Your task to perform on an android device: check out phone information Image 0: 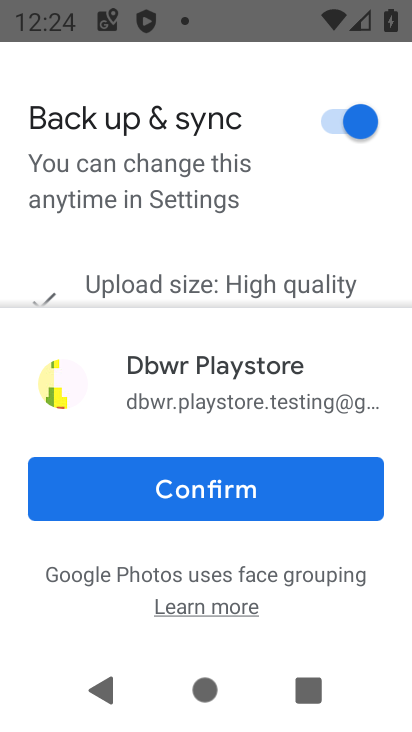
Step 0: press home button
Your task to perform on an android device: check out phone information Image 1: 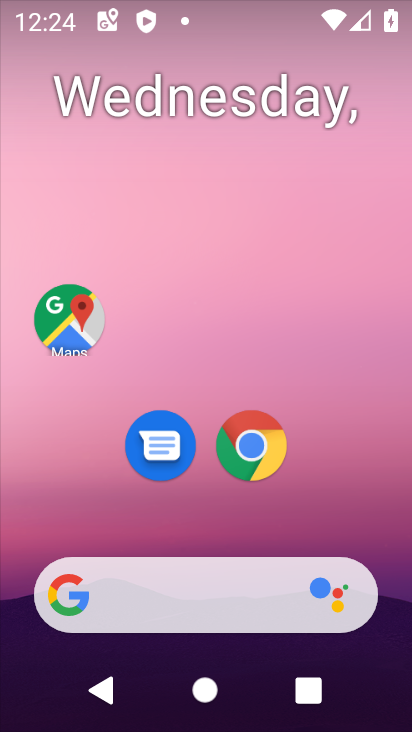
Step 1: drag from (298, 488) to (235, 165)
Your task to perform on an android device: check out phone information Image 2: 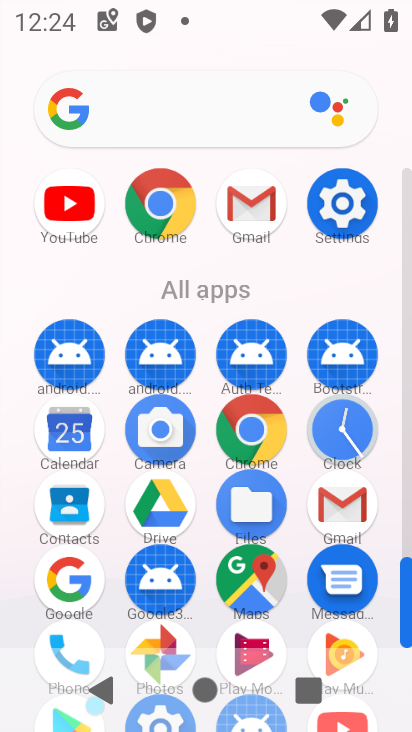
Step 2: drag from (202, 600) to (201, 281)
Your task to perform on an android device: check out phone information Image 3: 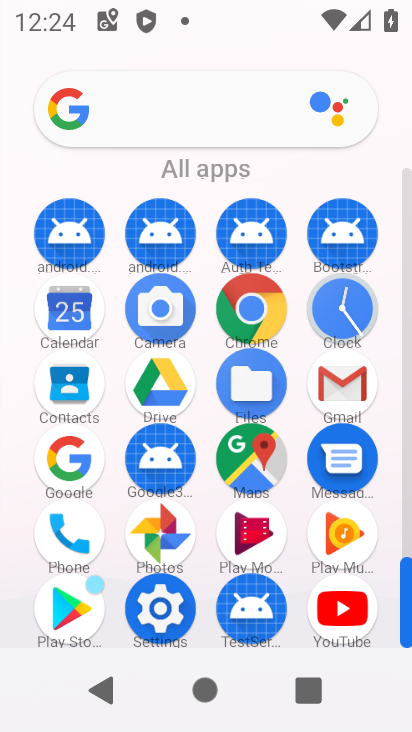
Step 3: click (65, 550)
Your task to perform on an android device: check out phone information Image 4: 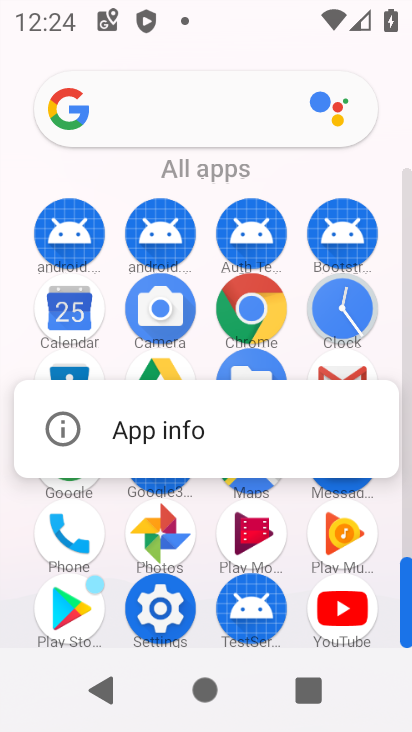
Step 4: click (121, 437)
Your task to perform on an android device: check out phone information Image 5: 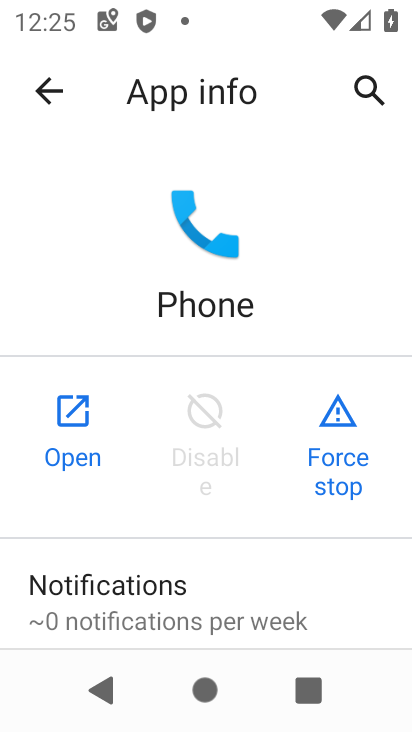
Step 5: task complete